Your task to perform on an android device: turn notification dots off Image 0: 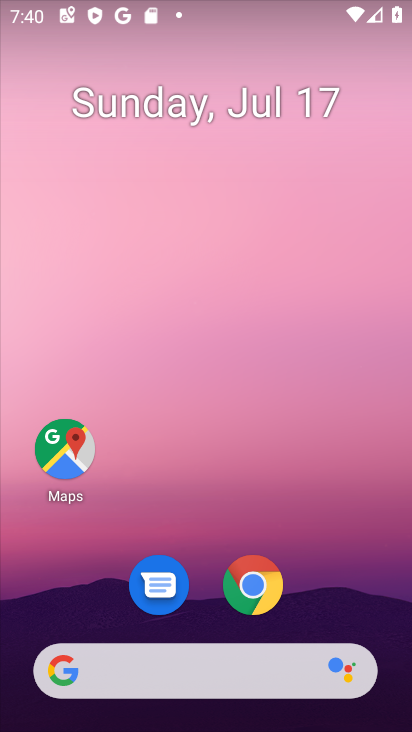
Step 0: drag from (311, 606) to (302, 109)
Your task to perform on an android device: turn notification dots off Image 1: 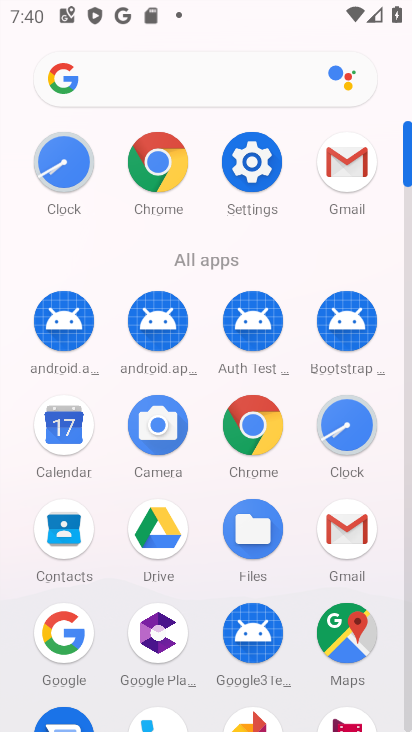
Step 1: click (273, 172)
Your task to perform on an android device: turn notification dots off Image 2: 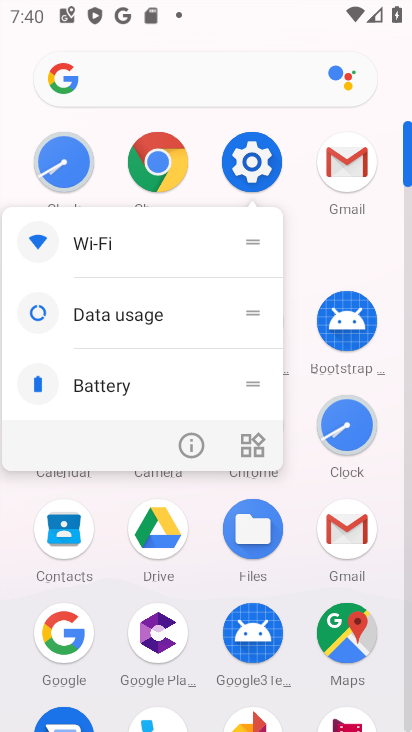
Step 2: click (255, 159)
Your task to perform on an android device: turn notification dots off Image 3: 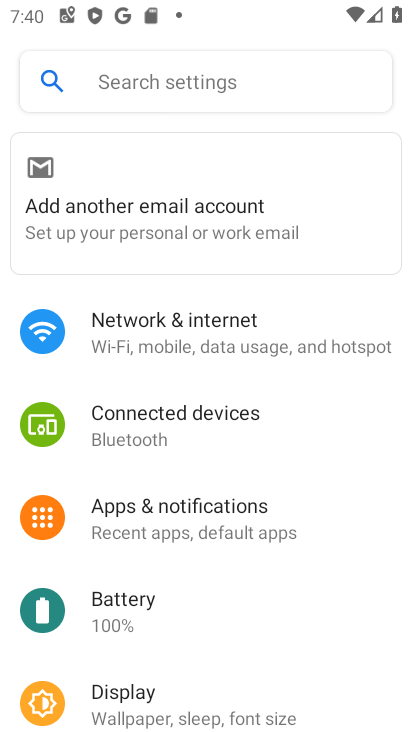
Step 3: click (230, 515)
Your task to perform on an android device: turn notification dots off Image 4: 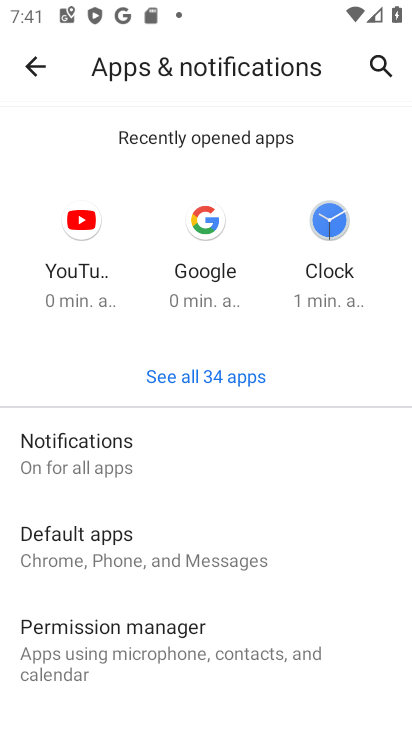
Step 4: click (102, 455)
Your task to perform on an android device: turn notification dots off Image 5: 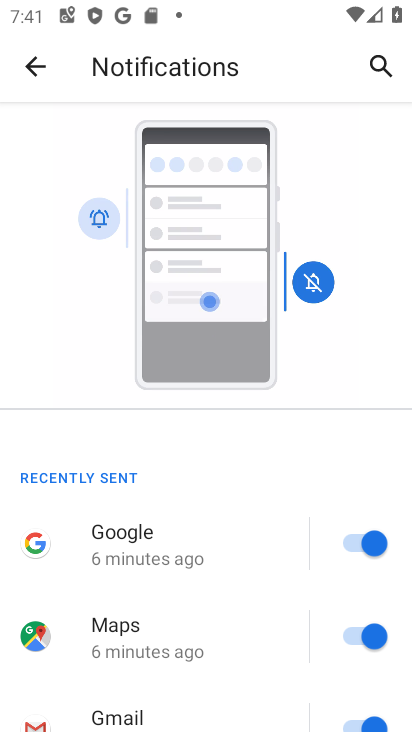
Step 5: drag from (223, 674) to (244, 68)
Your task to perform on an android device: turn notification dots off Image 6: 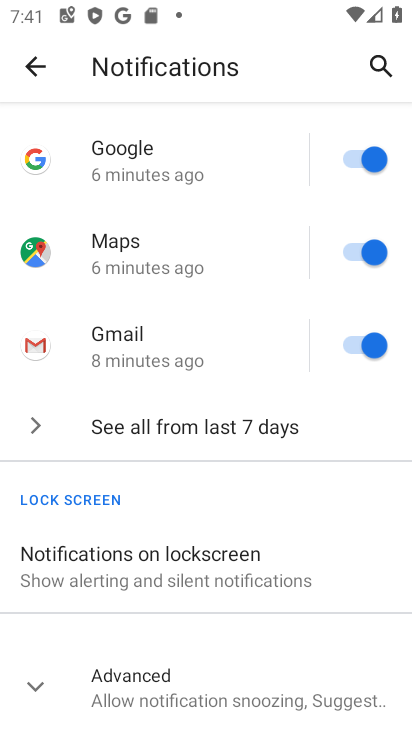
Step 6: click (36, 688)
Your task to perform on an android device: turn notification dots off Image 7: 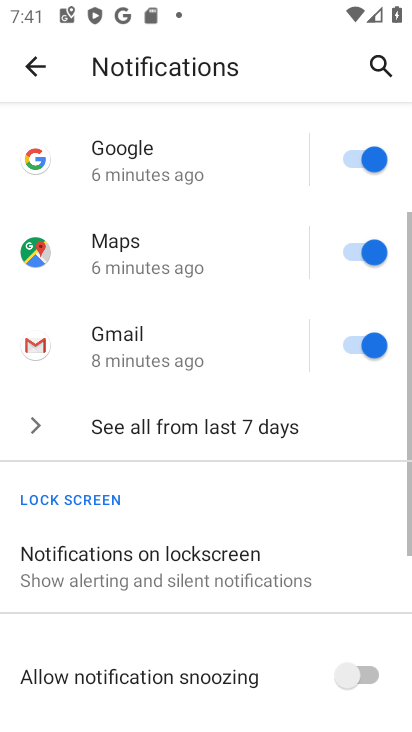
Step 7: task complete